Your task to perform on an android device: open a bookmark in the chrome app Image 0: 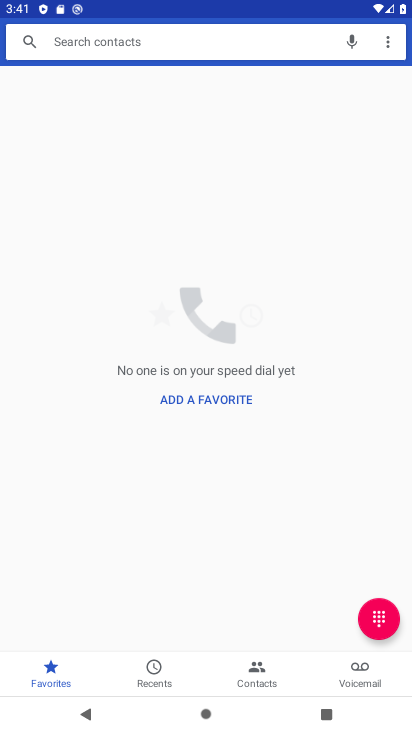
Step 0: press home button
Your task to perform on an android device: open a bookmark in the chrome app Image 1: 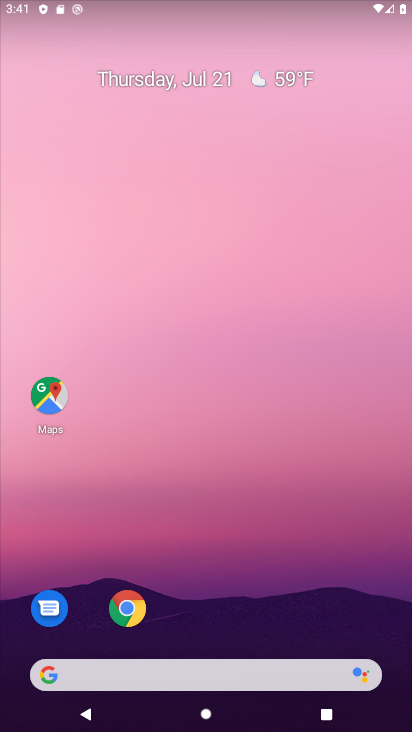
Step 1: drag from (172, 676) to (283, 12)
Your task to perform on an android device: open a bookmark in the chrome app Image 2: 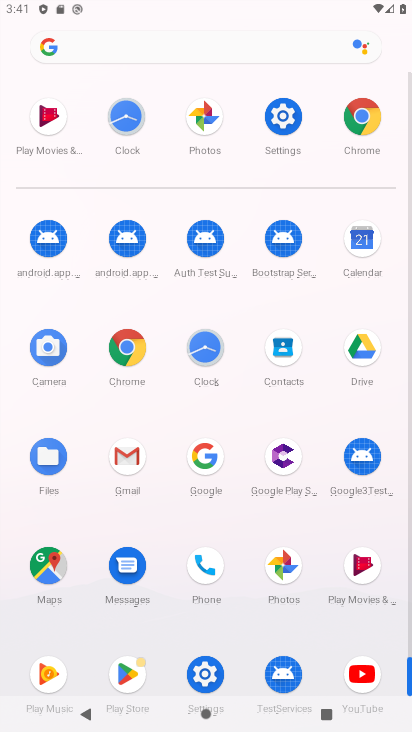
Step 2: click (124, 348)
Your task to perform on an android device: open a bookmark in the chrome app Image 3: 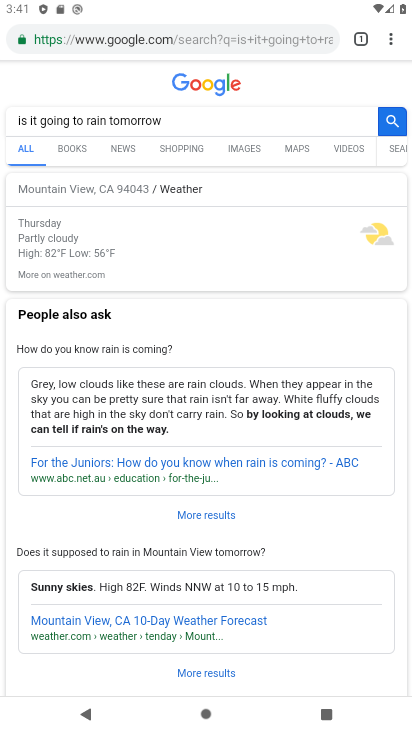
Step 3: task complete